Your task to perform on an android device: change the clock display to analog Image 0: 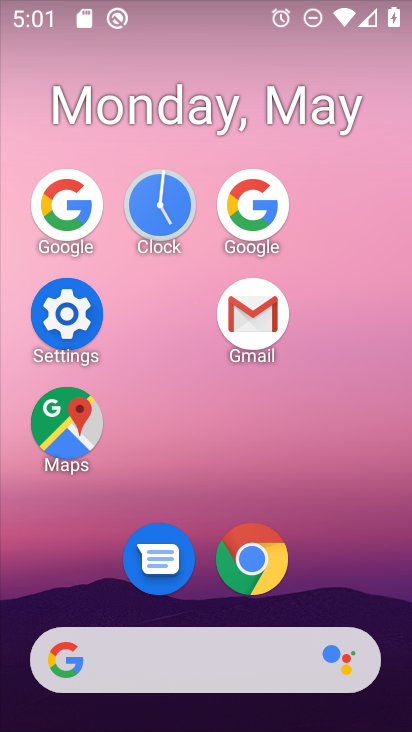
Step 0: click (169, 185)
Your task to perform on an android device: change the clock display to analog Image 1: 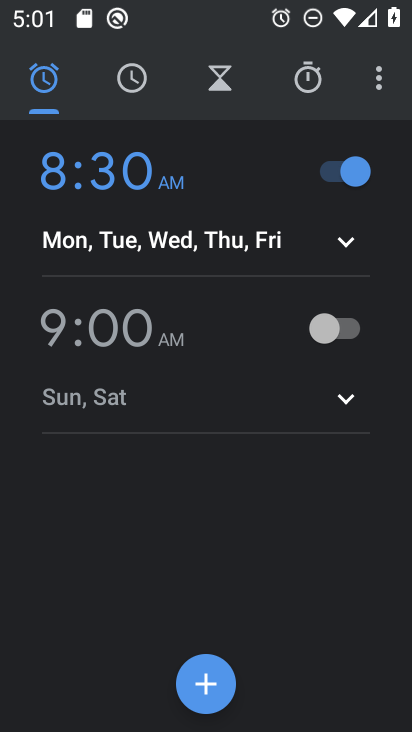
Step 1: click (367, 71)
Your task to perform on an android device: change the clock display to analog Image 2: 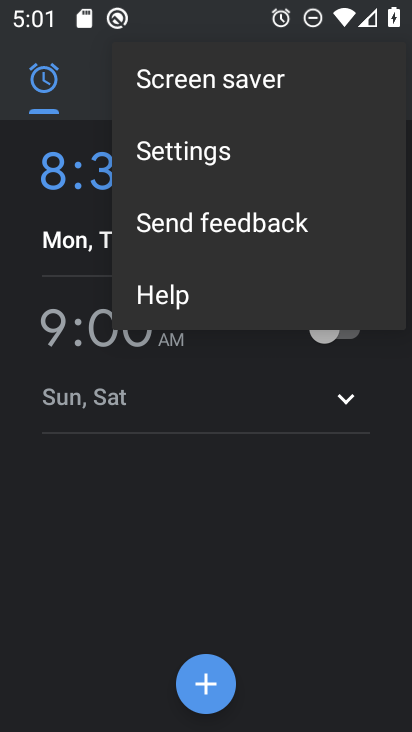
Step 2: click (292, 158)
Your task to perform on an android device: change the clock display to analog Image 3: 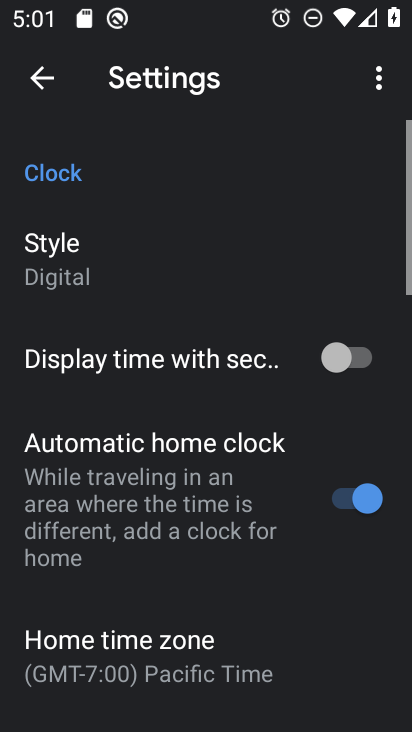
Step 3: click (96, 273)
Your task to perform on an android device: change the clock display to analog Image 4: 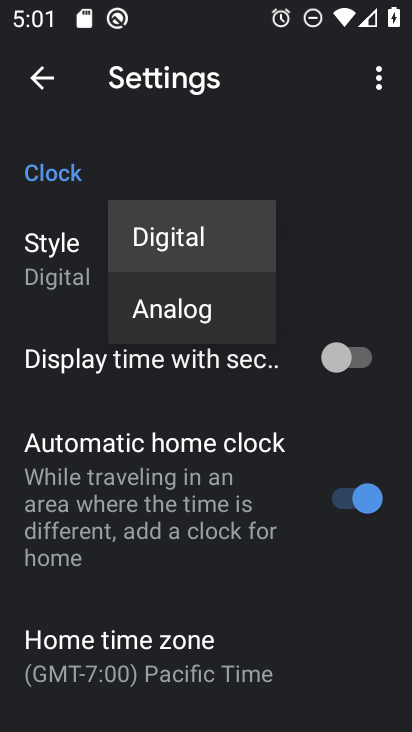
Step 4: click (146, 302)
Your task to perform on an android device: change the clock display to analog Image 5: 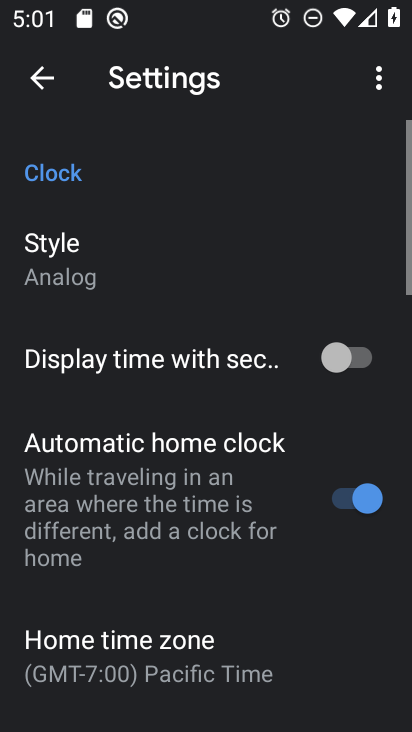
Step 5: task complete